Your task to perform on an android device: Open network settings Image 0: 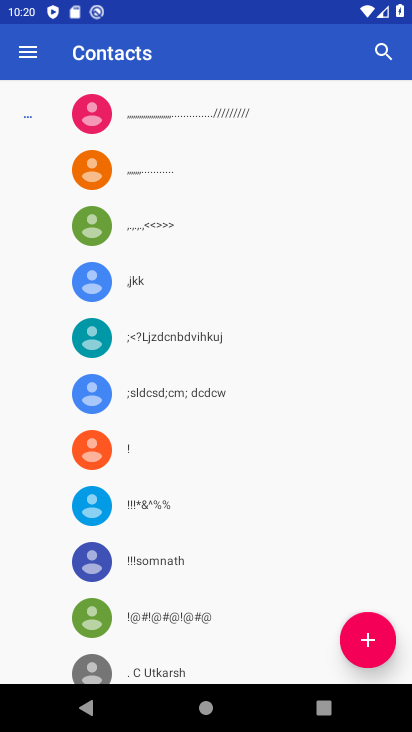
Step 0: press home button
Your task to perform on an android device: Open network settings Image 1: 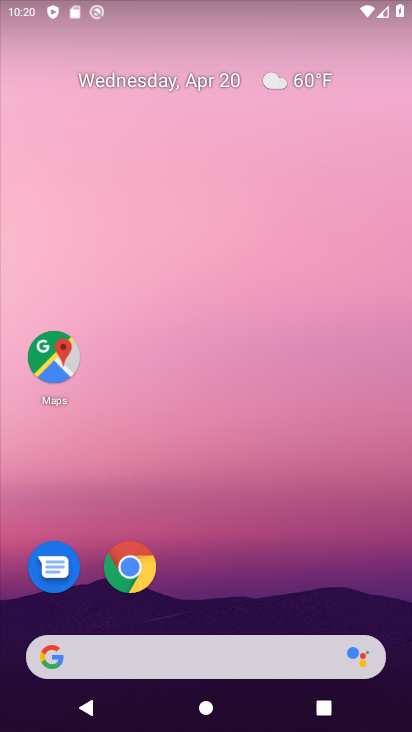
Step 1: drag from (332, 547) to (256, 2)
Your task to perform on an android device: Open network settings Image 2: 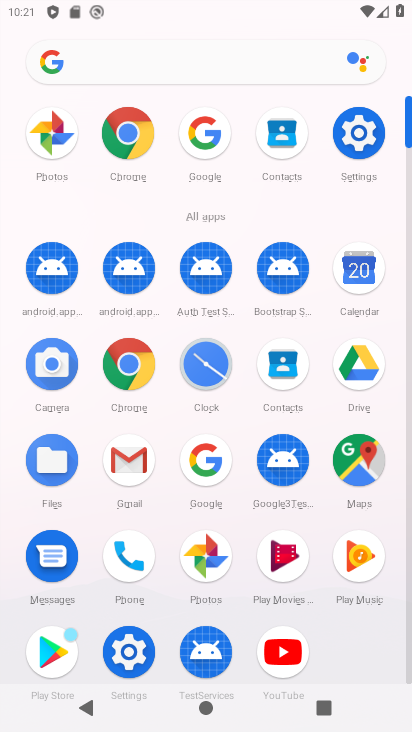
Step 2: click (367, 132)
Your task to perform on an android device: Open network settings Image 3: 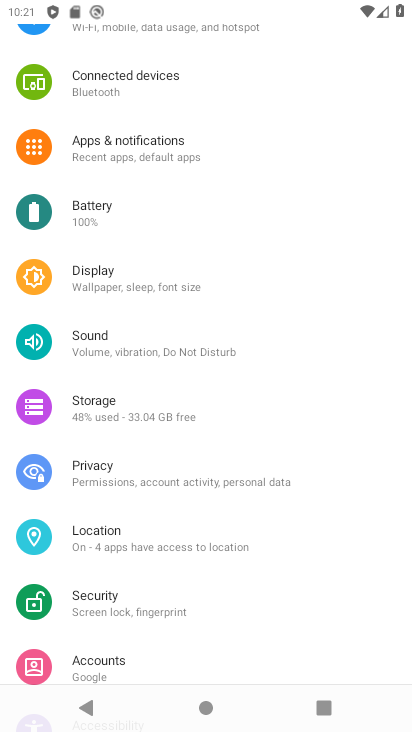
Step 3: drag from (169, 138) to (142, 394)
Your task to perform on an android device: Open network settings Image 4: 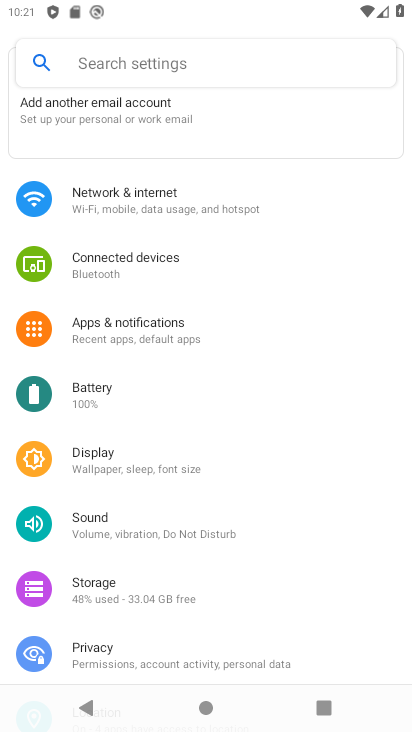
Step 4: click (120, 198)
Your task to perform on an android device: Open network settings Image 5: 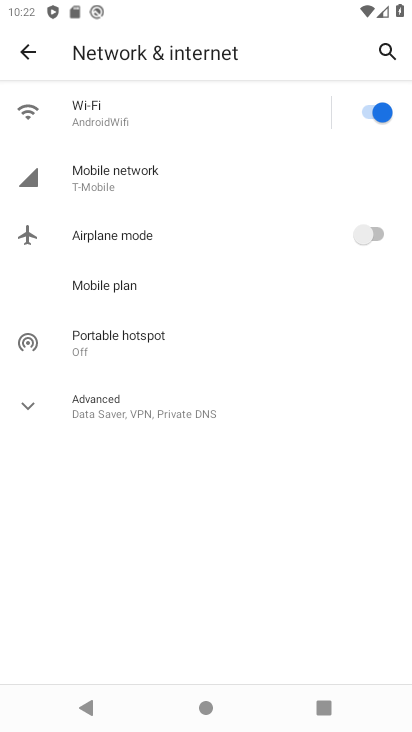
Step 5: task complete